Your task to perform on an android device: turn on the 24-hour format for clock Image 0: 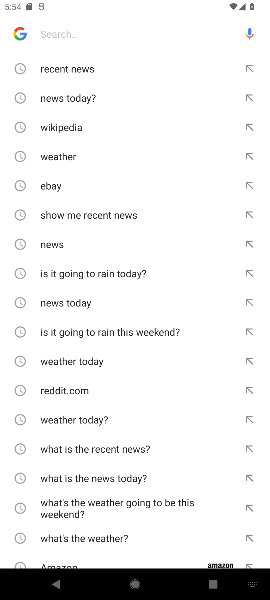
Step 0: press home button
Your task to perform on an android device: turn on the 24-hour format for clock Image 1: 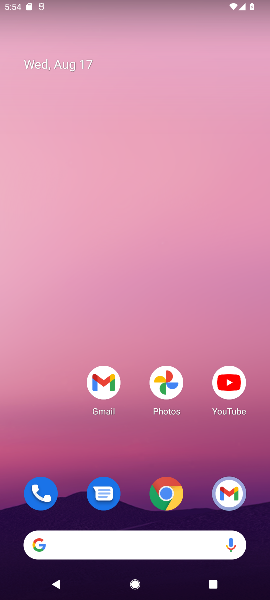
Step 1: drag from (143, 507) to (192, 166)
Your task to perform on an android device: turn on the 24-hour format for clock Image 2: 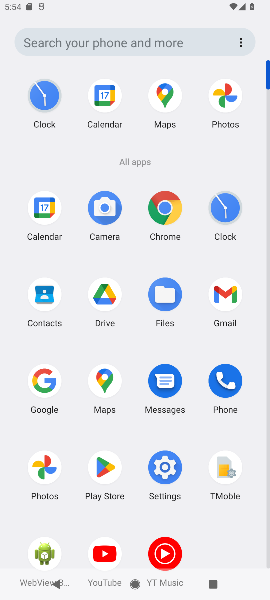
Step 2: click (167, 472)
Your task to perform on an android device: turn on the 24-hour format for clock Image 3: 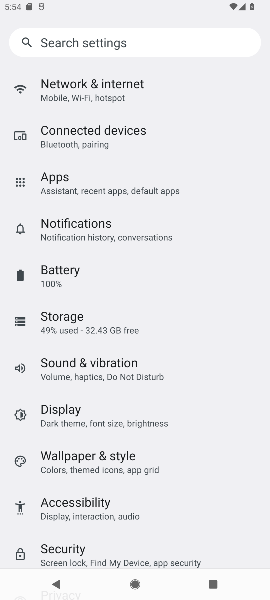
Step 3: drag from (217, 510) to (239, 232)
Your task to perform on an android device: turn on the 24-hour format for clock Image 4: 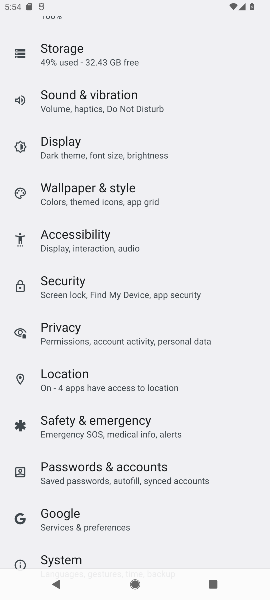
Step 4: click (71, 560)
Your task to perform on an android device: turn on the 24-hour format for clock Image 5: 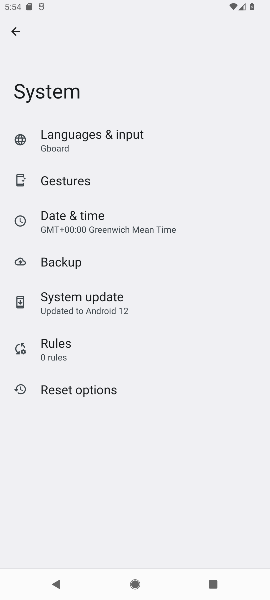
Step 5: click (70, 230)
Your task to perform on an android device: turn on the 24-hour format for clock Image 6: 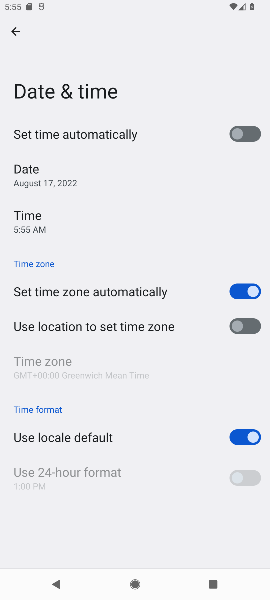
Step 6: click (262, 437)
Your task to perform on an android device: turn on the 24-hour format for clock Image 7: 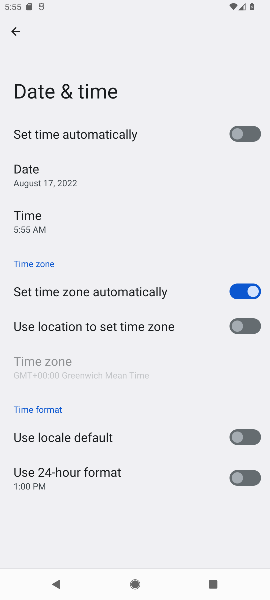
Step 7: click (239, 479)
Your task to perform on an android device: turn on the 24-hour format for clock Image 8: 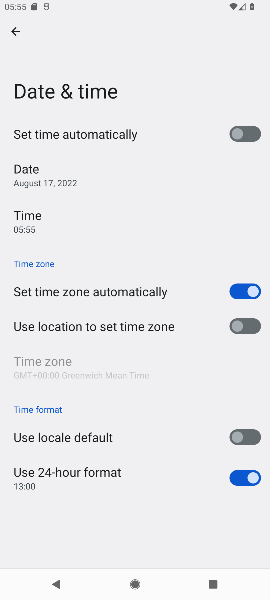
Step 8: task complete